Your task to perform on an android device: Show the shopping cart on ebay. Image 0: 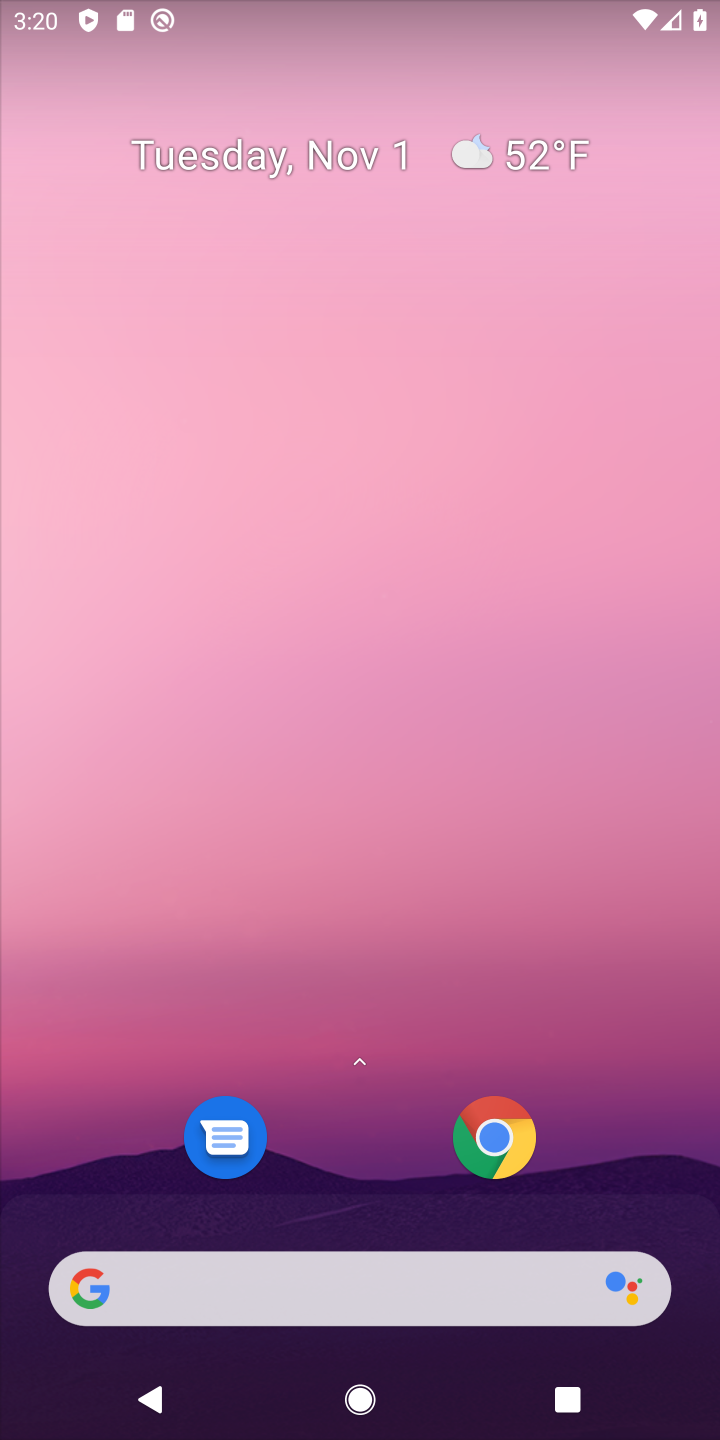
Step 0: click (210, 1300)
Your task to perform on an android device: Show the shopping cart on ebay. Image 1: 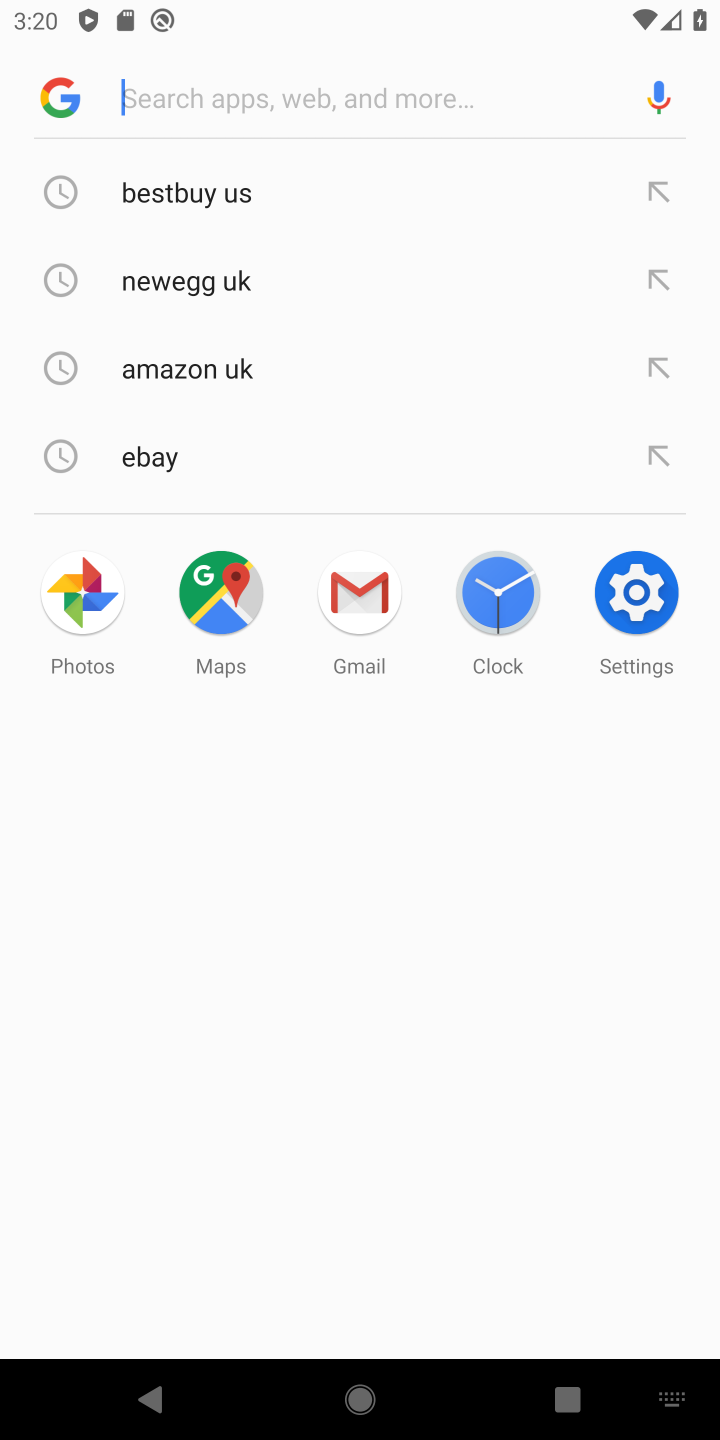
Step 1: type "ebay"
Your task to perform on an android device: Show the shopping cart on ebay. Image 2: 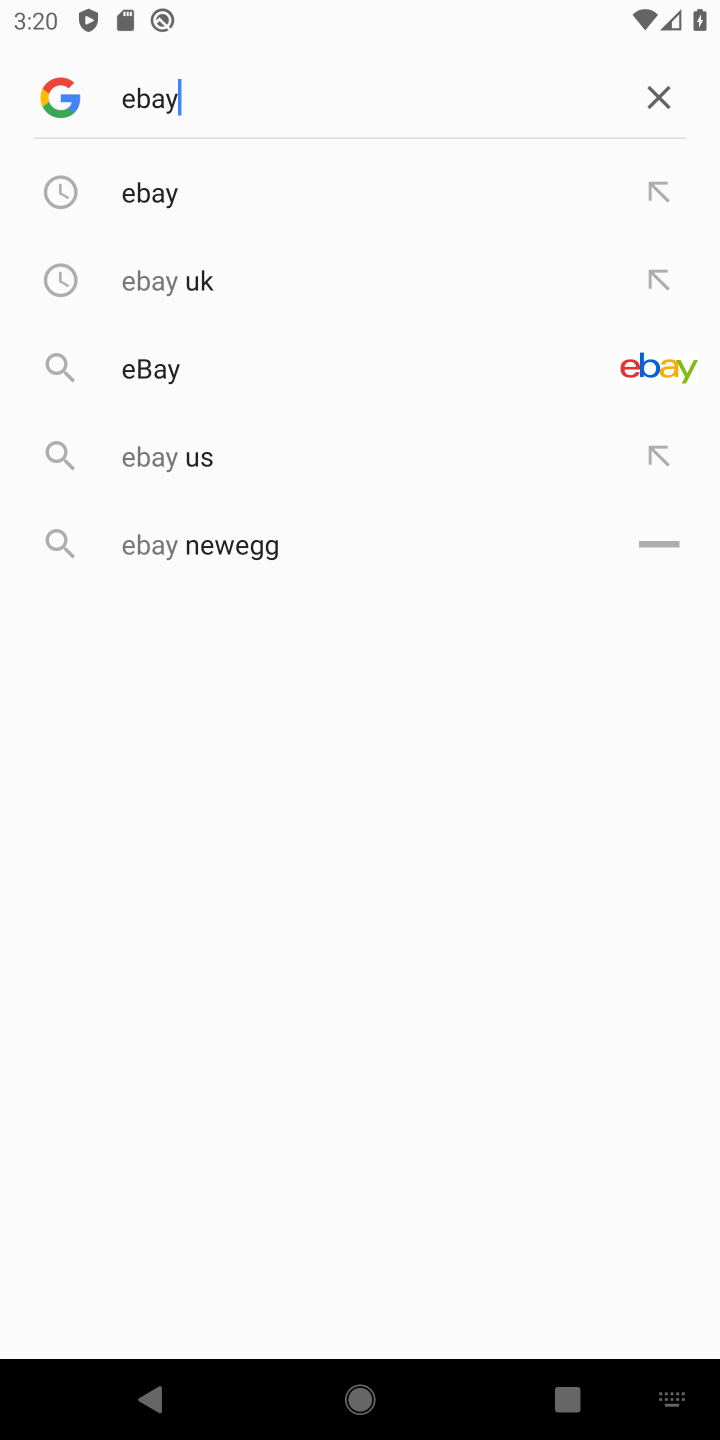
Step 2: click (146, 170)
Your task to perform on an android device: Show the shopping cart on ebay. Image 3: 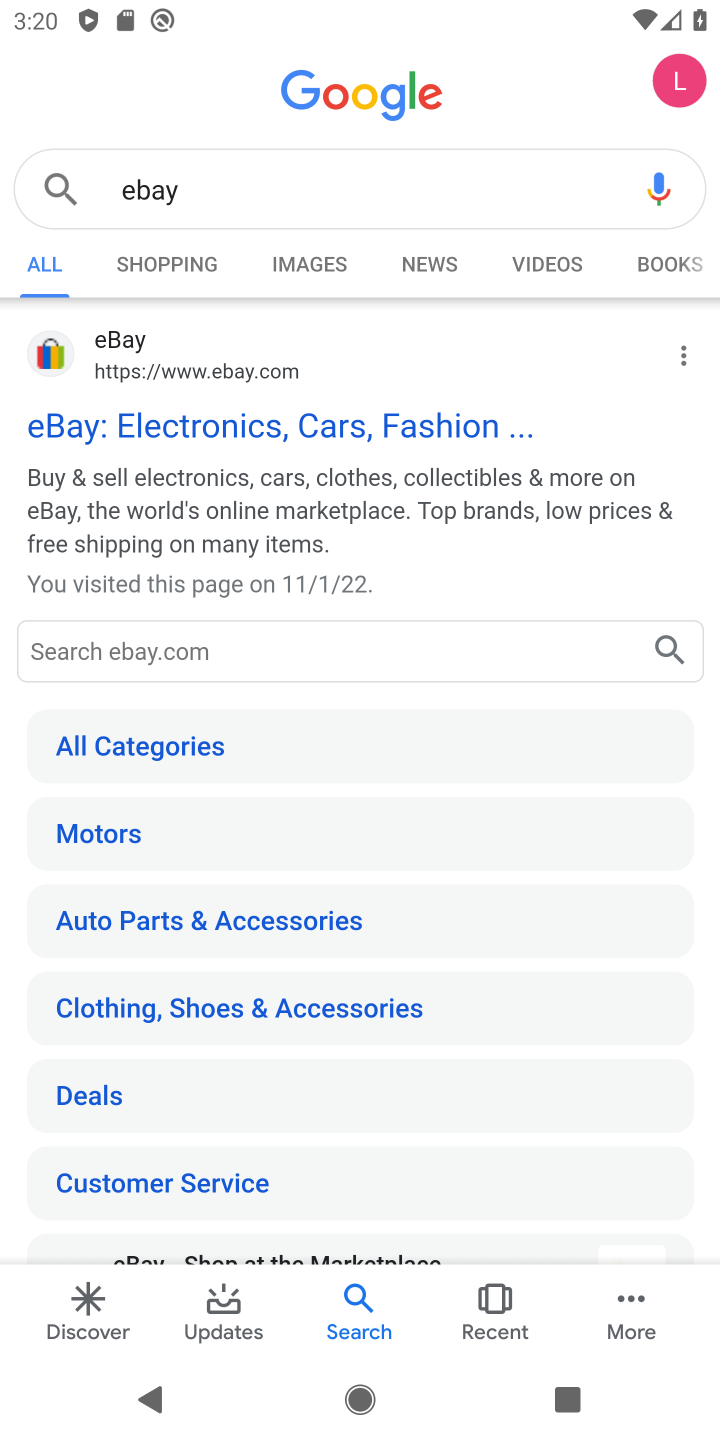
Step 3: click (169, 441)
Your task to perform on an android device: Show the shopping cart on ebay. Image 4: 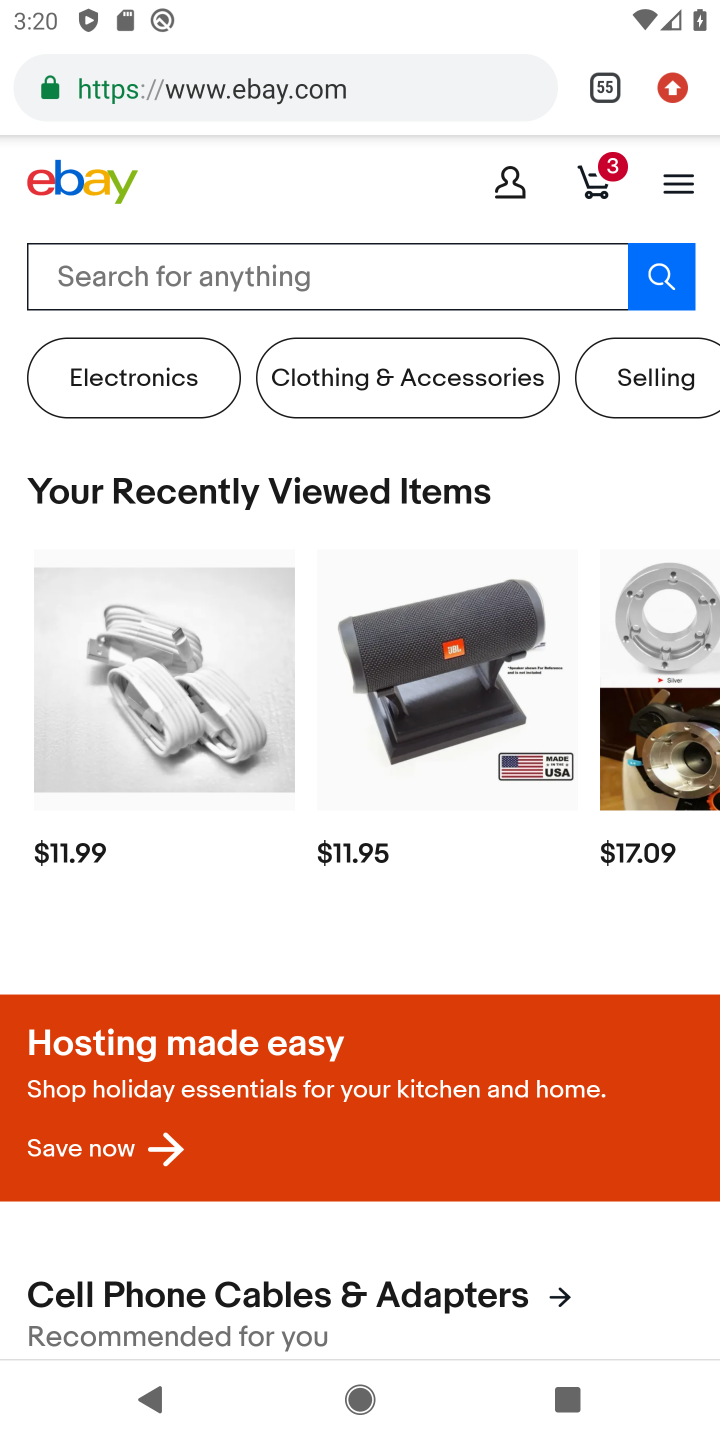
Step 4: task complete